Your task to perform on an android device: change timer sound Image 0: 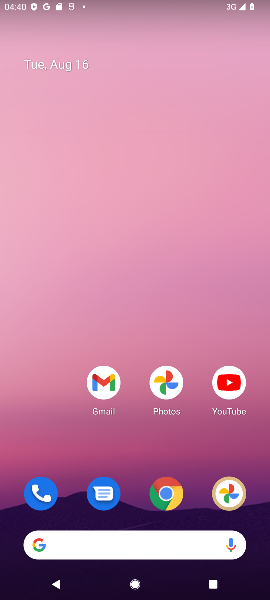
Step 0: press home button
Your task to perform on an android device: change timer sound Image 1: 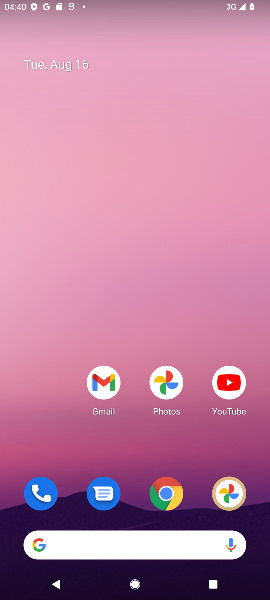
Step 1: drag from (58, 442) to (75, 118)
Your task to perform on an android device: change timer sound Image 2: 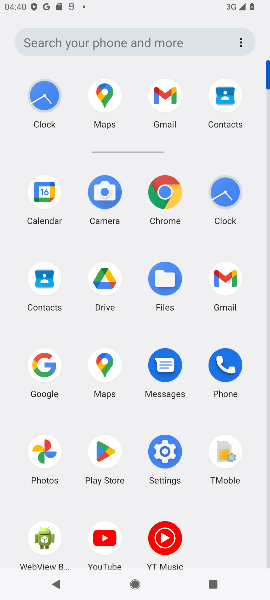
Step 2: click (218, 198)
Your task to perform on an android device: change timer sound Image 3: 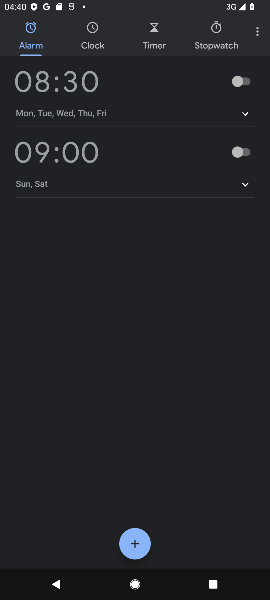
Step 3: click (258, 30)
Your task to perform on an android device: change timer sound Image 4: 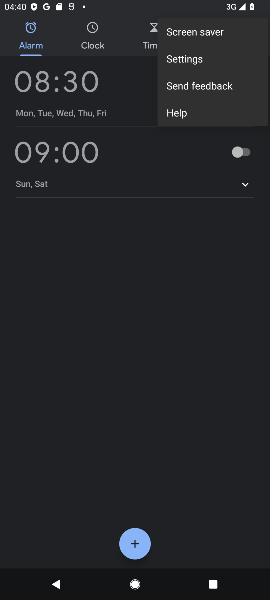
Step 4: click (196, 60)
Your task to perform on an android device: change timer sound Image 5: 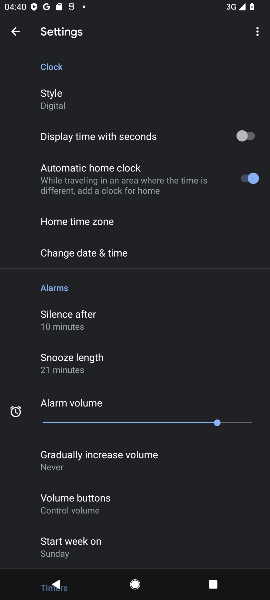
Step 5: drag from (186, 344) to (196, 261)
Your task to perform on an android device: change timer sound Image 6: 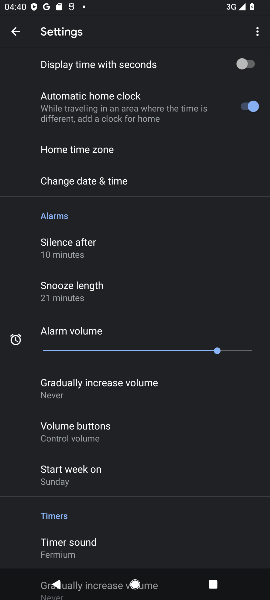
Step 6: drag from (175, 472) to (192, 352)
Your task to perform on an android device: change timer sound Image 7: 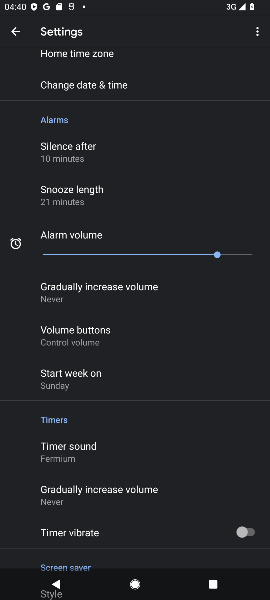
Step 7: drag from (176, 489) to (193, 380)
Your task to perform on an android device: change timer sound Image 8: 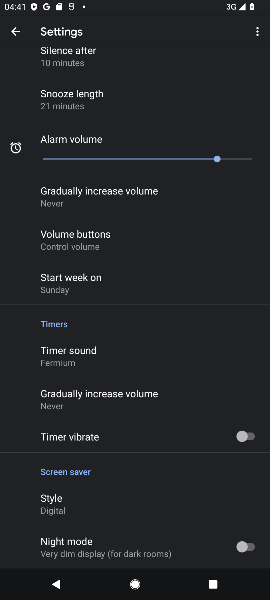
Step 8: drag from (165, 509) to (181, 390)
Your task to perform on an android device: change timer sound Image 9: 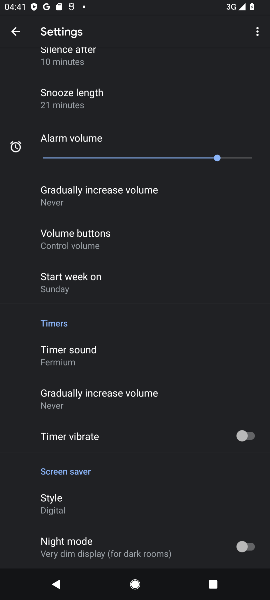
Step 9: click (120, 346)
Your task to perform on an android device: change timer sound Image 10: 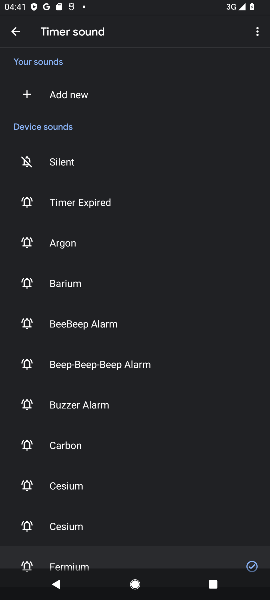
Step 10: click (105, 370)
Your task to perform on an android device: change timer sound Image 11: 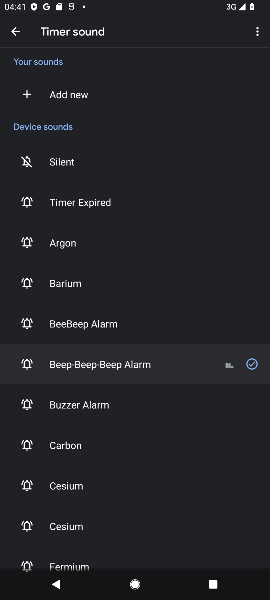
Step 11: task complete